Your task to perform on an android device: turn on the 24-hour format for clock Image 0: 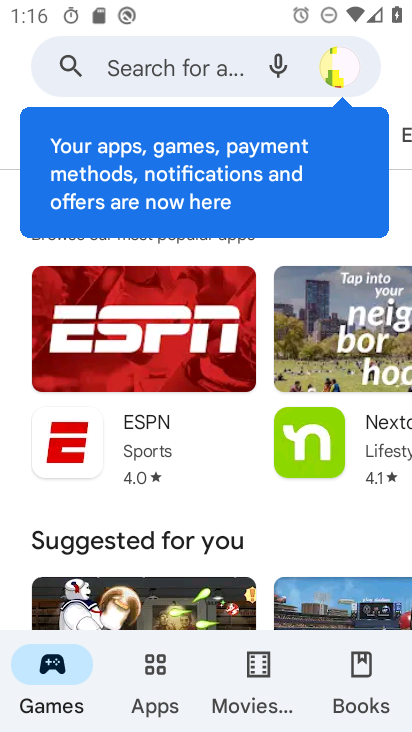
Step 0: press home button
Your task to perform on an android device: turn on the 24-hour format for clock Image 1: 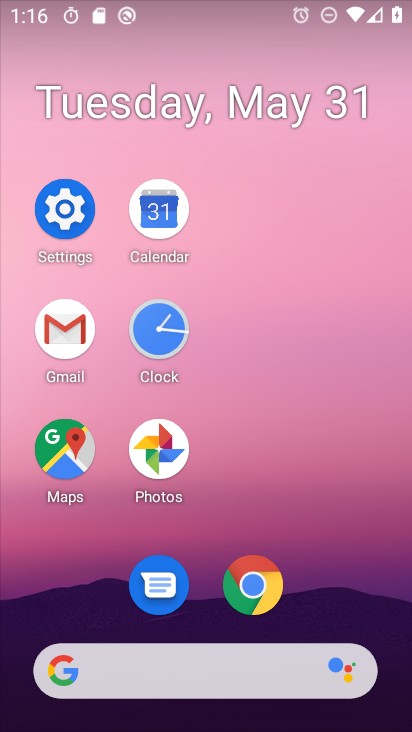
Step 1: click (158, 328)
Your task to perform on an android device: turn on the 24-hour format for clock Image 2: 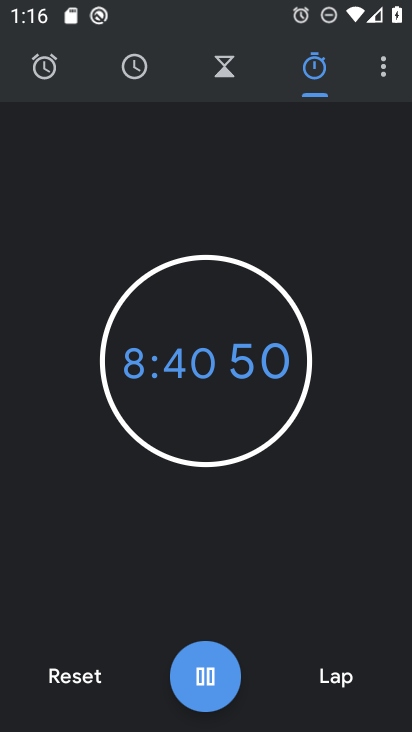
Step 2: click (380, 74)
Your task to perform on an android device: turn on the 24-hour format for clock Image 3: 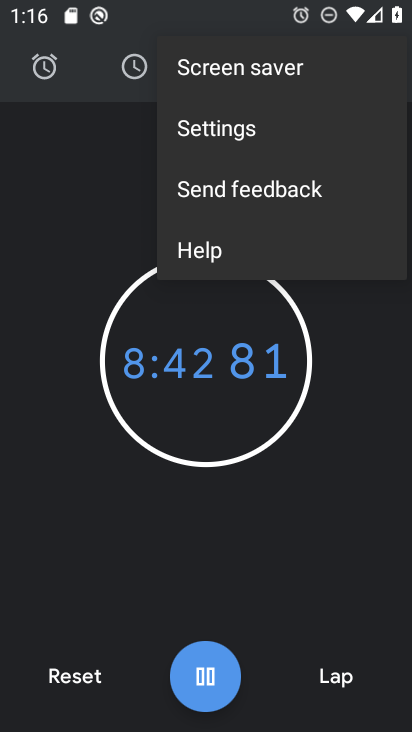
Step 3: click (277, 141)
Your task to perform on an android device: turn on the 24-hour format for clock Image 4: 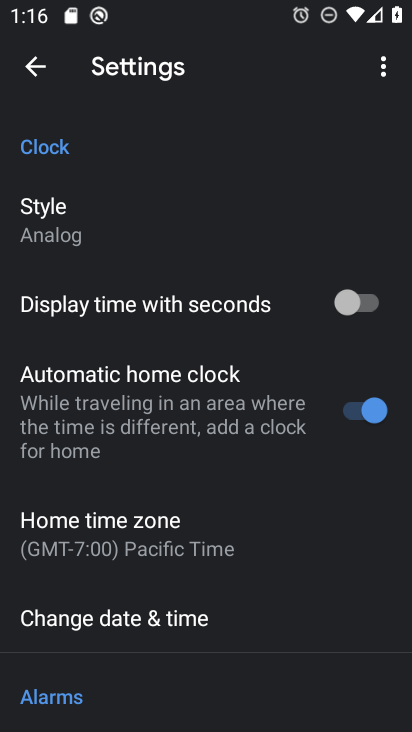
Step 4: drag from (156, 645) to (217, 177)
Your task to perform on an android device: turn on the 24-hour format for clock Image 5: 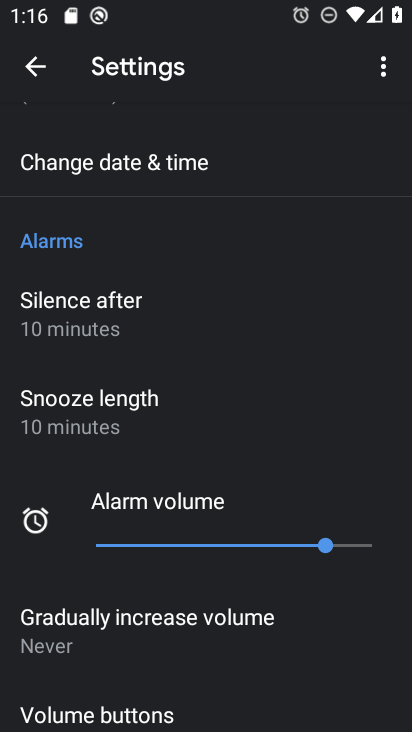
Step 5: click (218, 177)
Your task to perform on an android device: turn on the 24-hour format for clock Image 6: 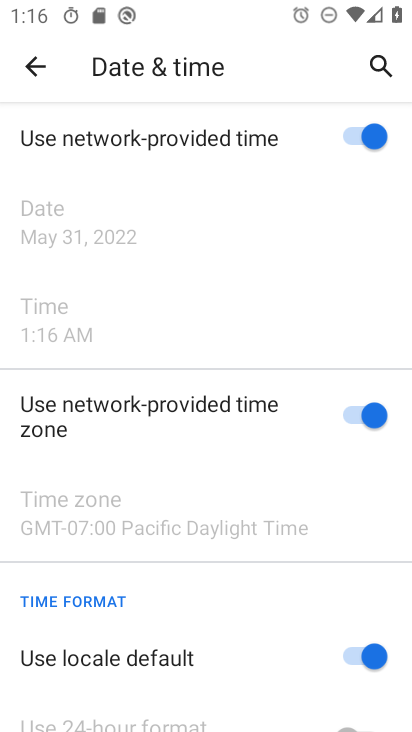
Step 6: task complete